Your task to perform on an android device: snooze an email in the gmail app Image 0: 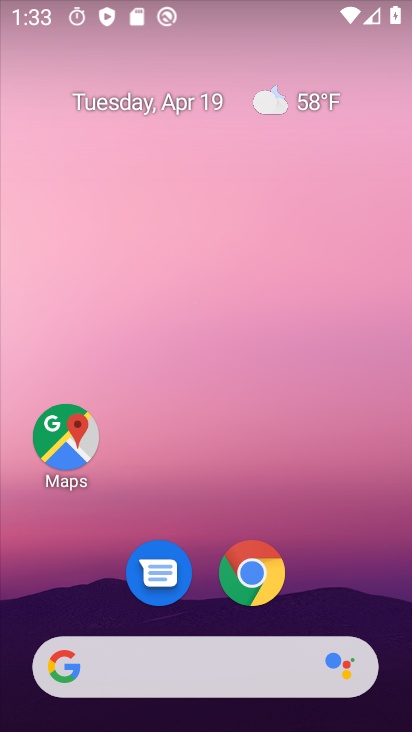
Step 0: drag from (349, 498) to (300, 3)
Your task to perform on an android device: snooze an email in the gmail app Image 1: 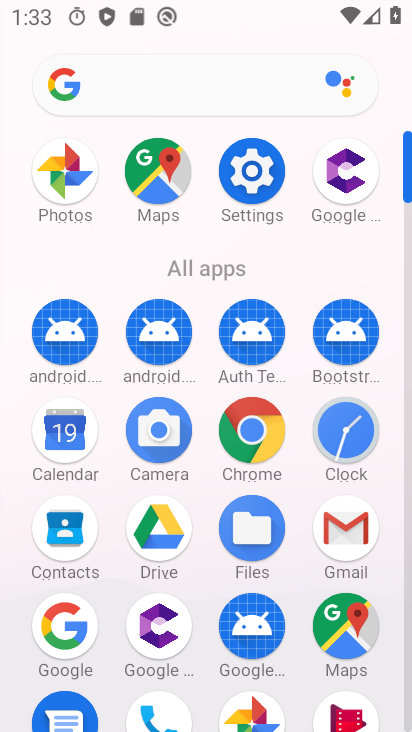
Step 1: click (362, 521)
Your task to perform on an android device: snooze an email in the gmail app Image 2: 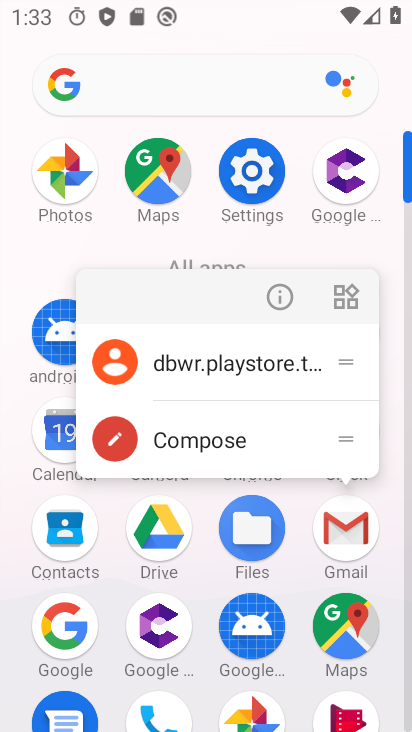
Step 2: click (358, 521)
Your task to perform on an android device: snooze an email in the gmail app Image 3: 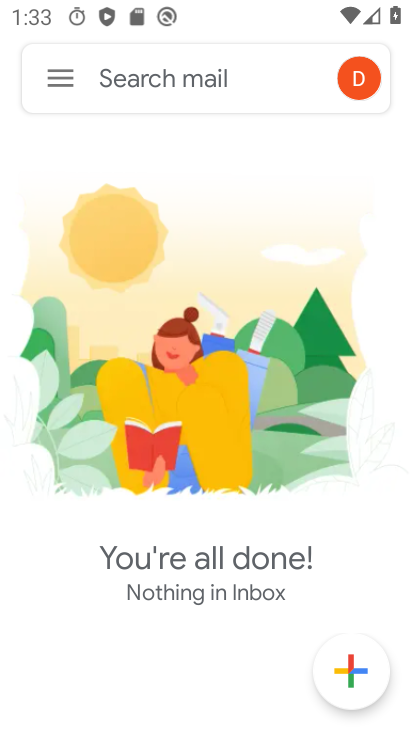
Step 3: click (50, 87)
Your task to perform on an android device: snooze an email in the gmail app Image 4: 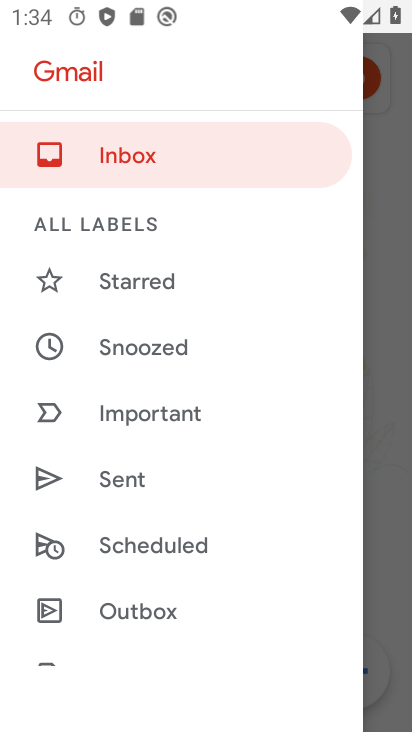
Step 4: drag from (190, 598) to (126, 235)
Your task to perform on an android device: snooze an email in the gmail app Image 5: 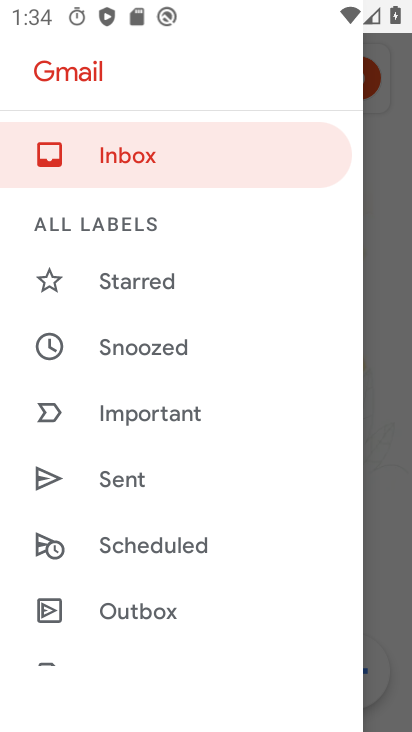
Step 5: drag from (185, 231) to (245, 562)
Your task to perform on an android device: snooze an email in the gmail app Image 6: 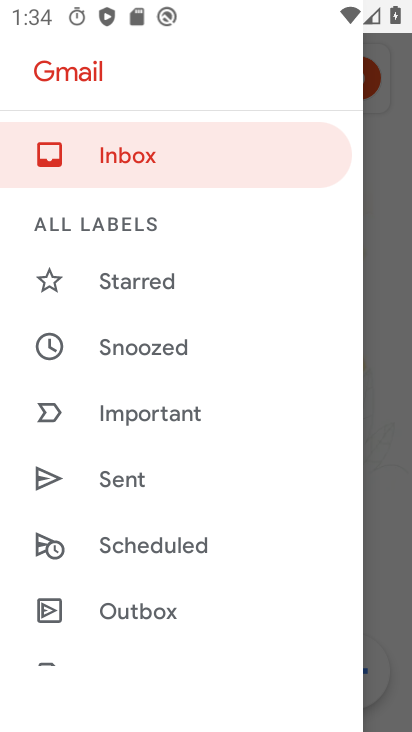
Step 6: click (173, 170)
Your task to perform on an android device: snooze an email in the gmail app Image 7: 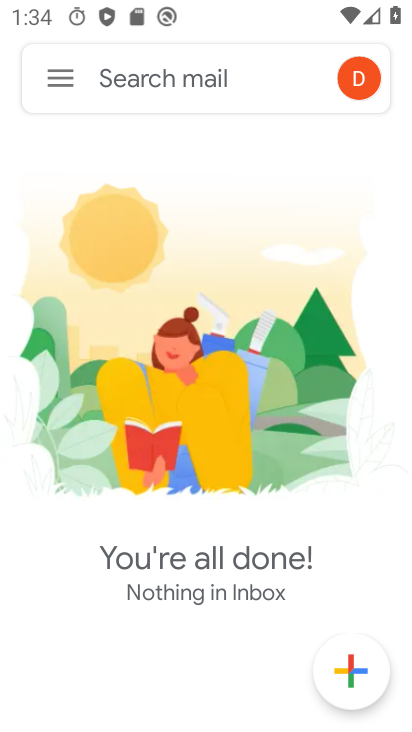
Step 7: task complete